Your task to perform on an android device: Open the map Image 0: 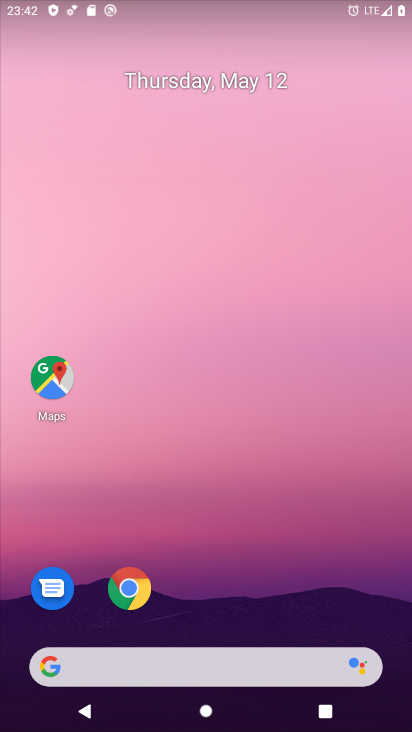
Step 0: click (385, 233)
Your task to perform on an android device: Open the map Image 1: 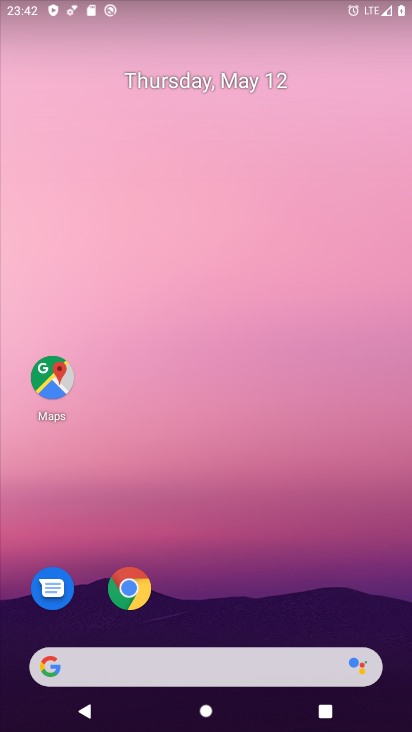
Step 1: drag from (201, 611) to (223, 213)
Your task to perform on an android device: Open the map Image 2: 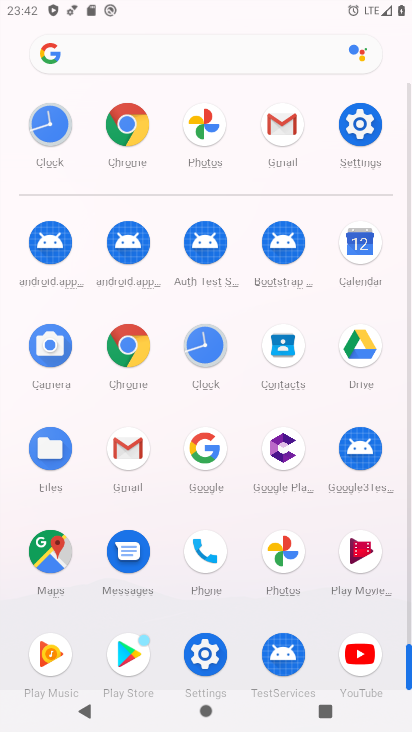
Step 2: click (44, 547)
Your task to perform on an android device: Open the map Image 3: 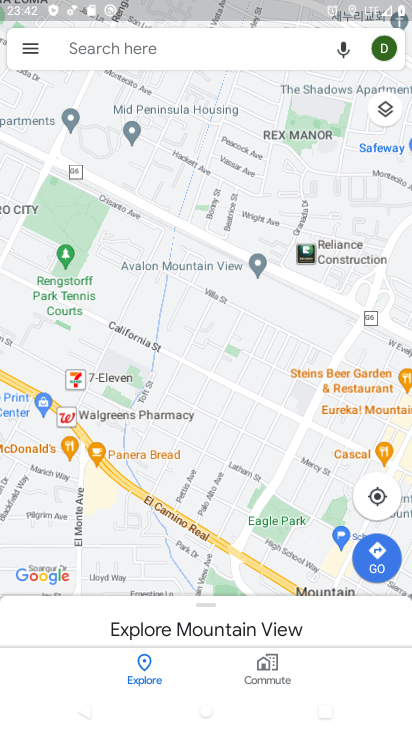
Step 3: drag from (243, 571) to (306, 181)
Your task to perform on an android device: Open the map Image 4: 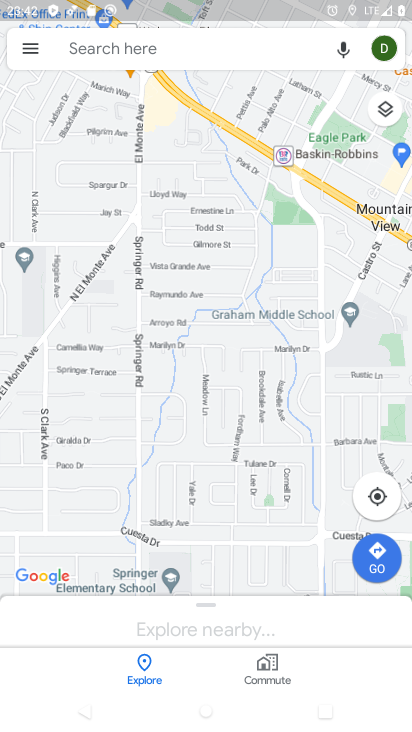
Step 4: drag from (235, 523) to (253, 312)
Your task to perform on an android device: Open the map Image 5: 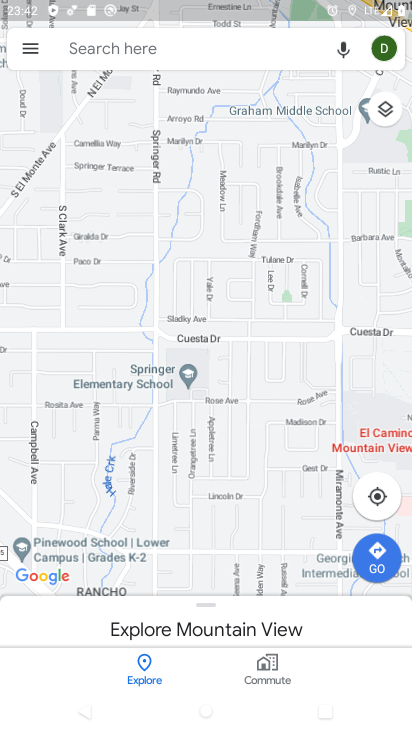
Step 5: click (31, 47)
Your task to perform on an android device: Open the map Image 6: 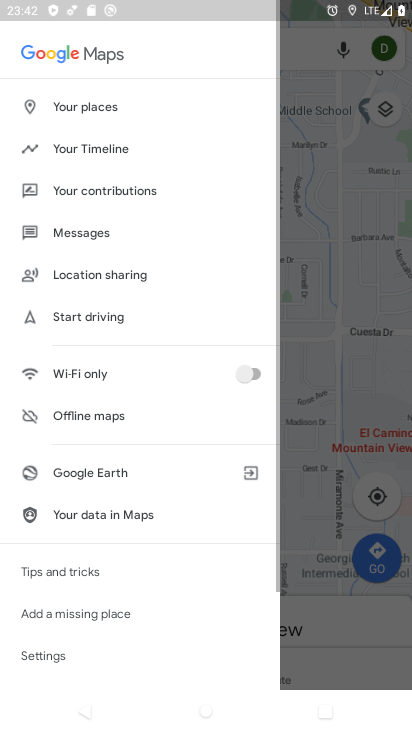
Step 6: task complete